Your task to perform on an android device: Go to privacy settings Image 0: 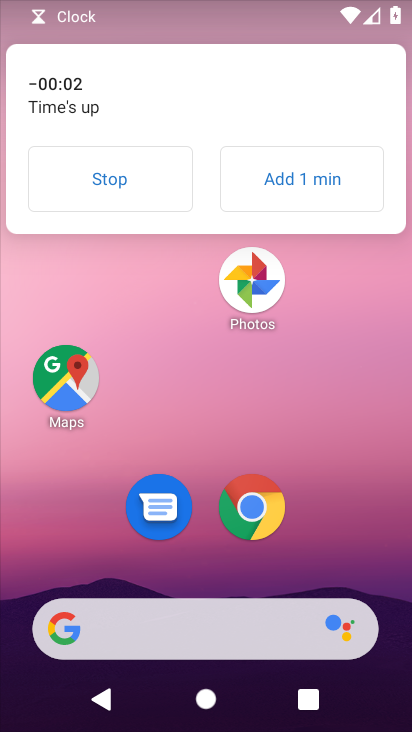
Step 0: click (176, 188)
Your task to perform on an android device: Go to privacy settings Image 1: 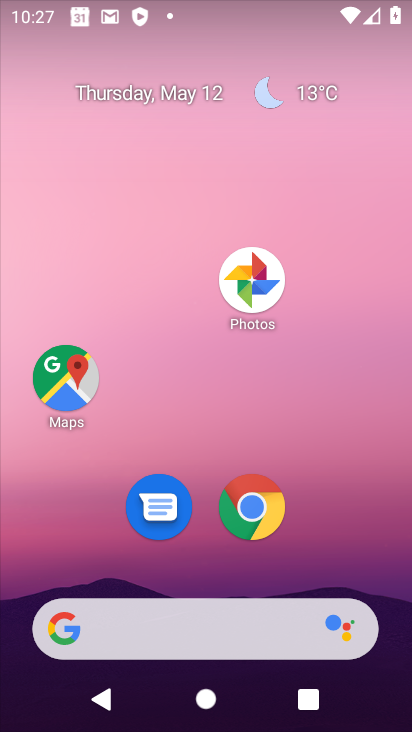
Step 1: drag from (327, 392) to (310, 84)
Your task to perform on an android device: Go to privacy settings Image 2: 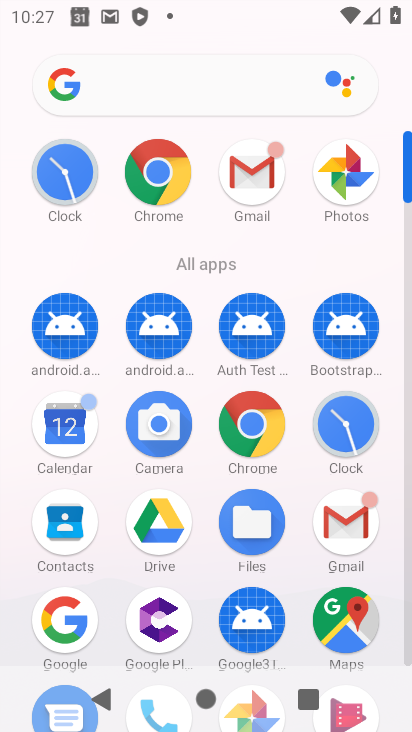
Step 2: click (406, 575)
Your task to perform on an android device: Go to privacy settings Image 3: 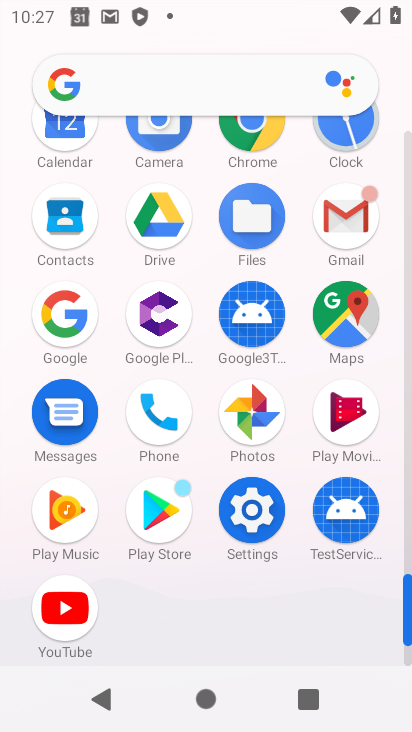
Step 3: click (242, 542)
Your task to perform on an android device: Go to privacy settings Image 4: 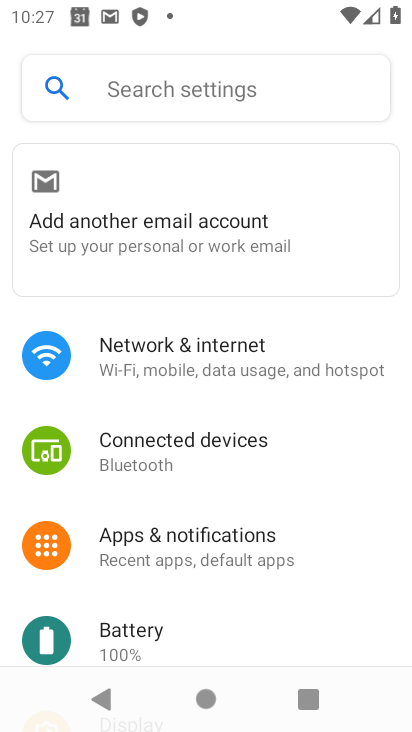
Step 4: drag from (278, 586) to (309, 368)
Your task to perform on an android device: Go to privacy settings Image 5: 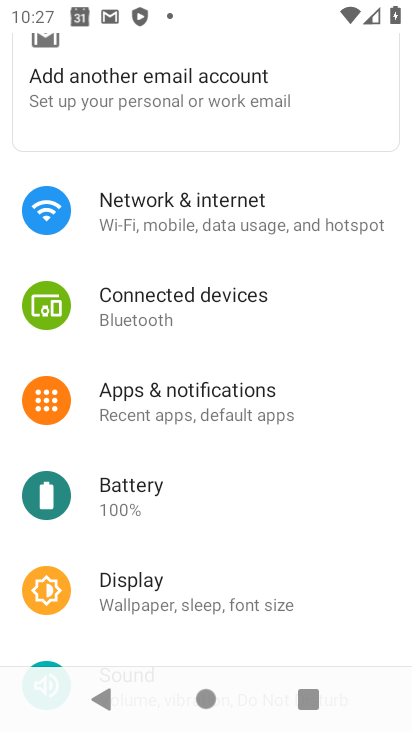
Step 5: drag from (235, 597) to (254, 290)
Your task to perform on an android device: Go to privacy settings Image 6: 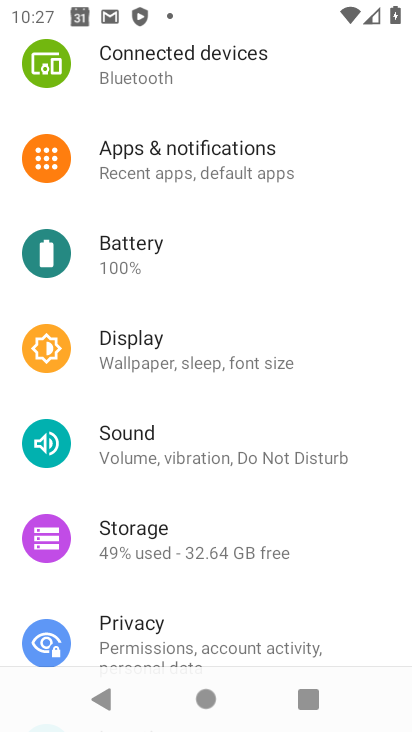
Step 6: click (161, 619)
Your task to perform on an android device: Go to privacy settings Image 7: 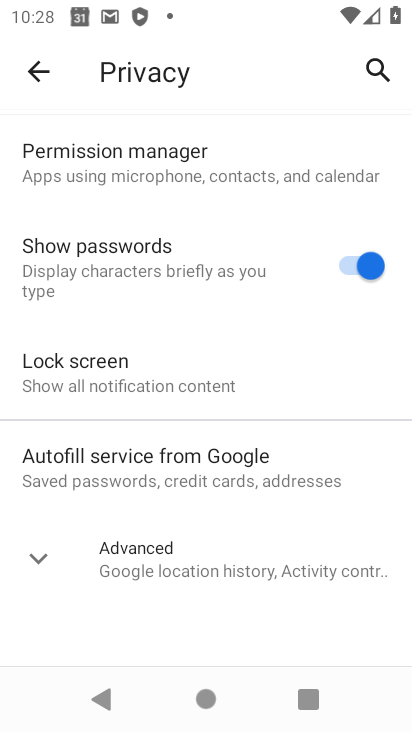
Step 7: task complete